Your task to perform on an android device: Clear all items from cart on target.com. Search for logitech g pro on target.com, select the first entry, add it to the cart, then select checkout. Image 0: 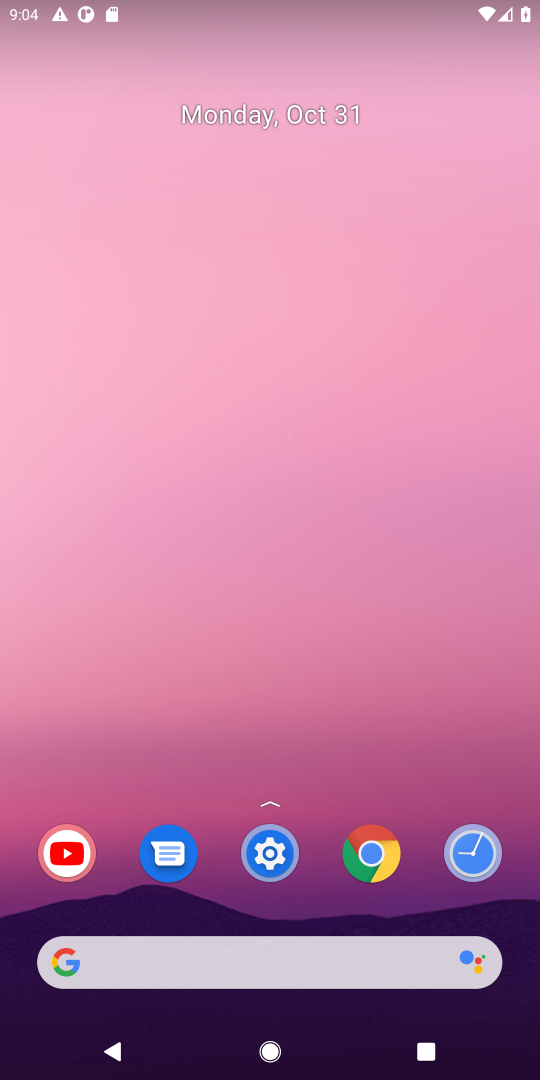
Step 0: click (213, 960)
Your task to perform on an android device: Clear all items from cart on target.com. Search for logitech g pro on target.com, select the first entry, add it to the cart, then select checkout. Image 1: 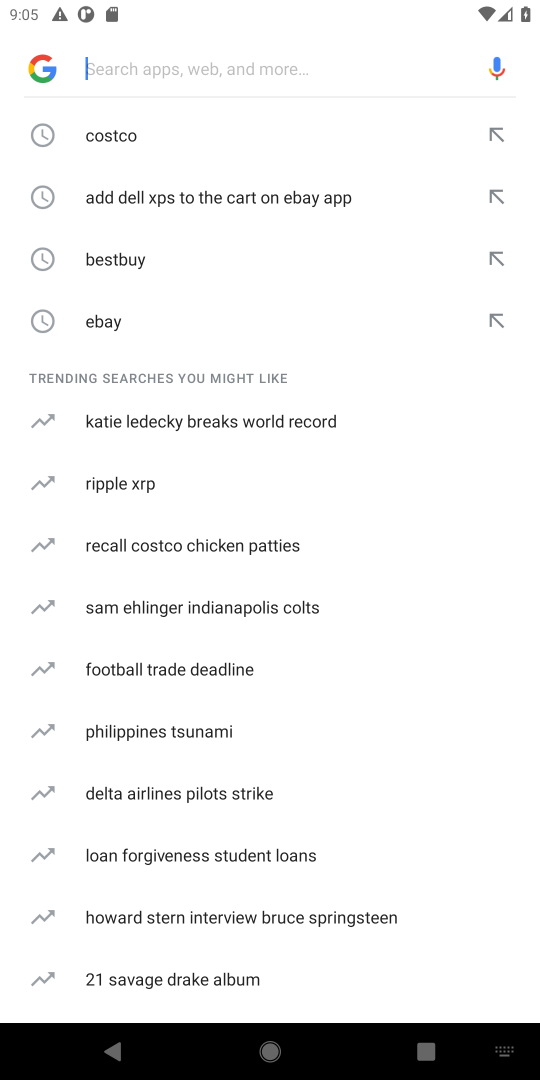
Step 1: type "target.com"
Your task to perform on an android device: Clear all items from cart on target.com. Search for logitech g pro on target.com, select the first entry, add it to the cart, then select checkout. Image 2: 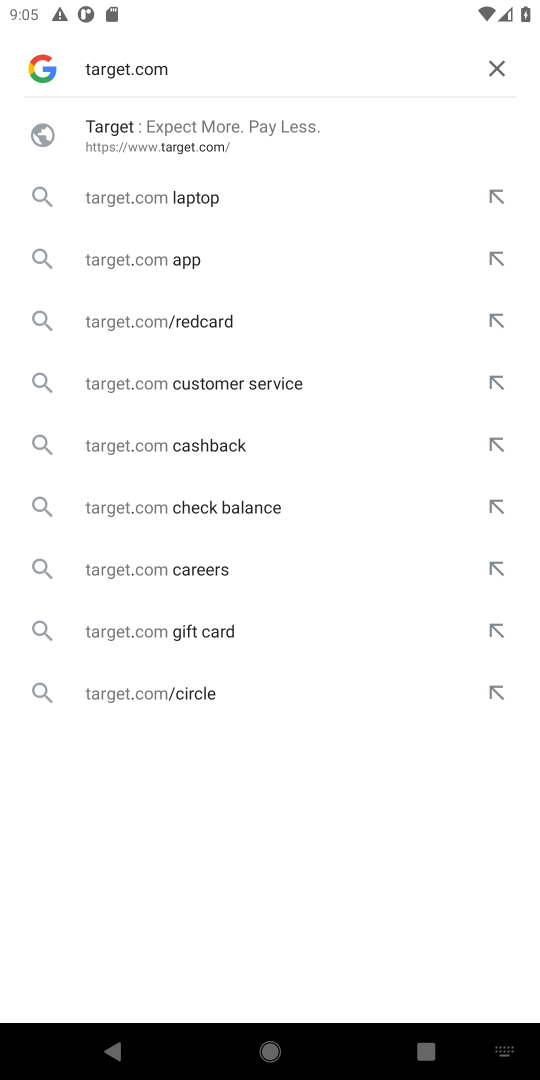
Step 2: click (121, 133)
Your task to perform on an android device: Clear all items from cart on target.com. Search for logitech g pro on target.com, select the first entry, add it to the cart, then select checkout. Image 3: 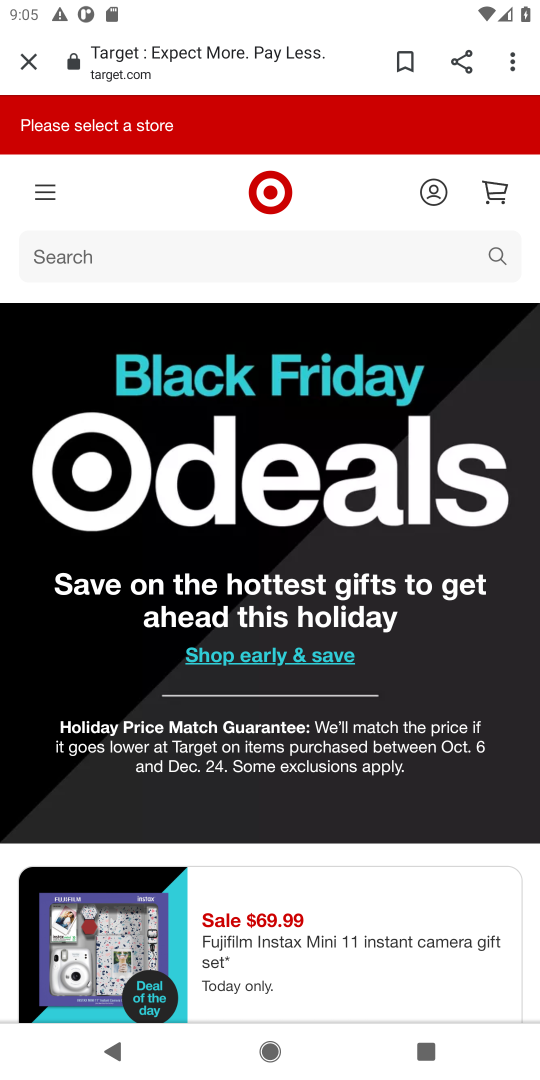
Step 3: click (278, 250)
Your task to perform on an android device: Clear all items from cart on target.com. Search for logitech g pro on target.com, select the first entry, add it to the cart, then select checkout. Image 4: 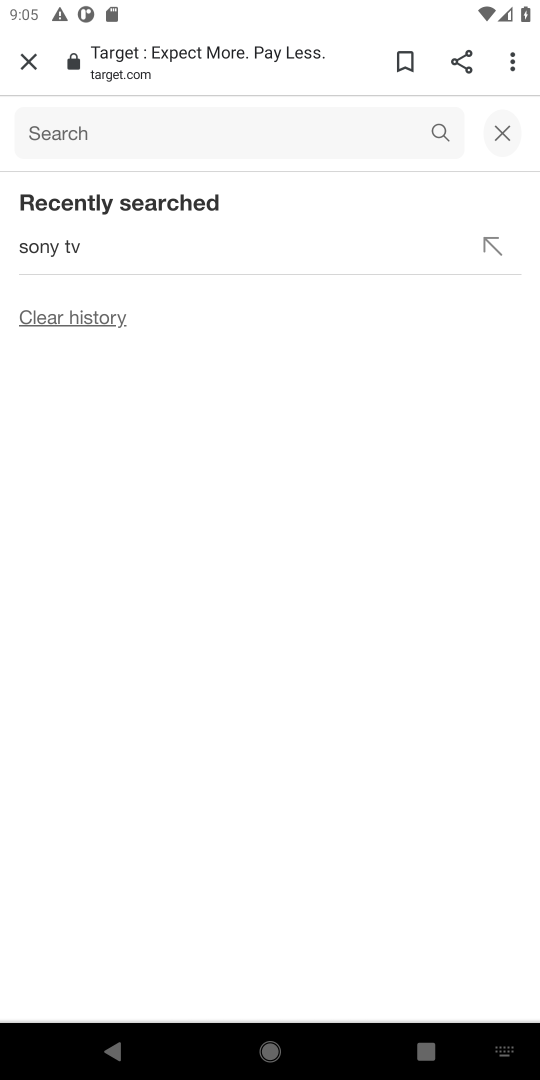
Step 4: type "logitech gpro"
Your task to perform on an android device: Clear all items from cart on target.com. Search for logitech g pro on target.com, select the first entry, add it to the cart, then select checkout. Image 5: 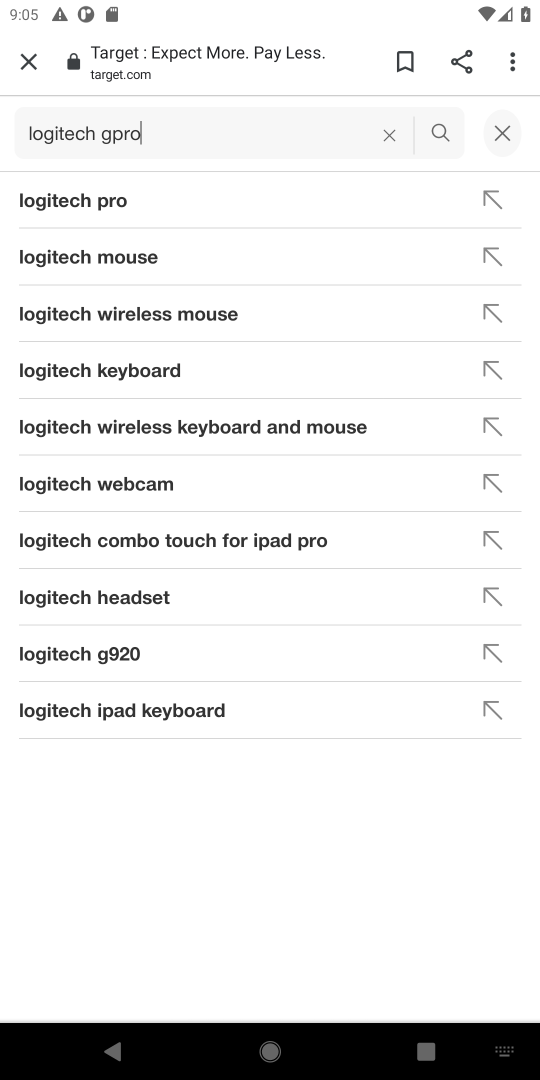
Step 5: click (114, 195)
Your task to perform on an android device: Clear all items from cart on target.com. Search for logitech g pro on target.com, select the first entry, add it to the cart, then select checkout. Image 6: 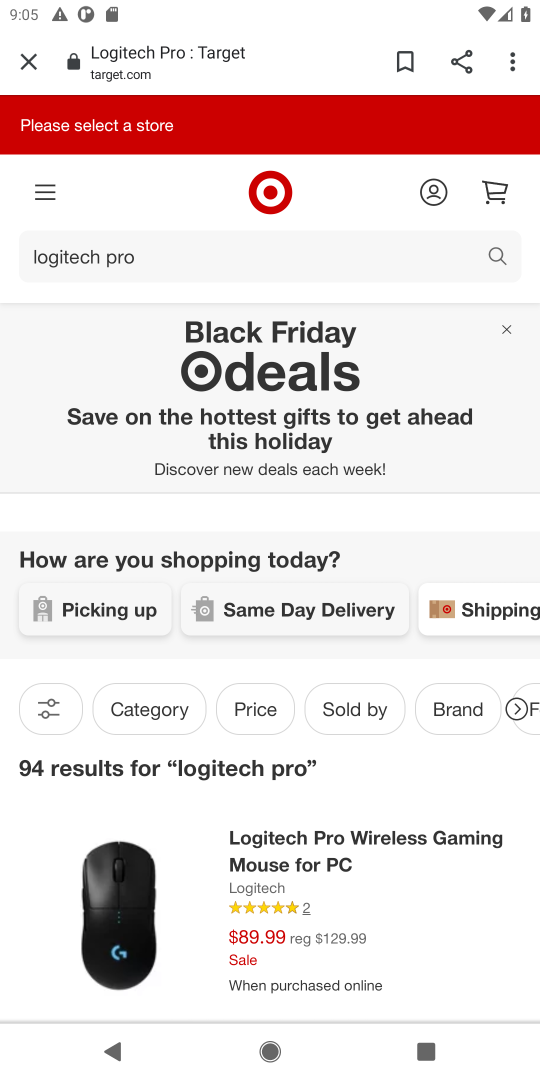
Step 6: drag from (472, 939) to (472, 824)
Your task to perform on an android device: Clear all items from cart on target.com. Search for logitech g pro on target.com, select the first entry, add it to the cart, then select checkout. Image 7: 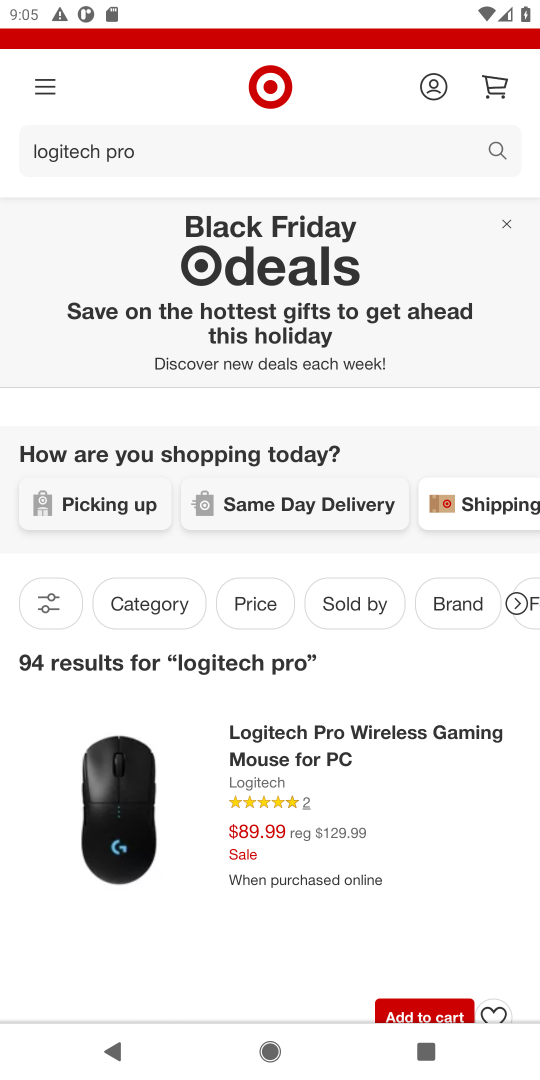
Step 7: click (403, 1013)
Your task to perform on an android device: Clear all items from cart on target.com. Search for logitech g pro on target.com, select the first entry, add it to the cart, then select checkout. Image 8: 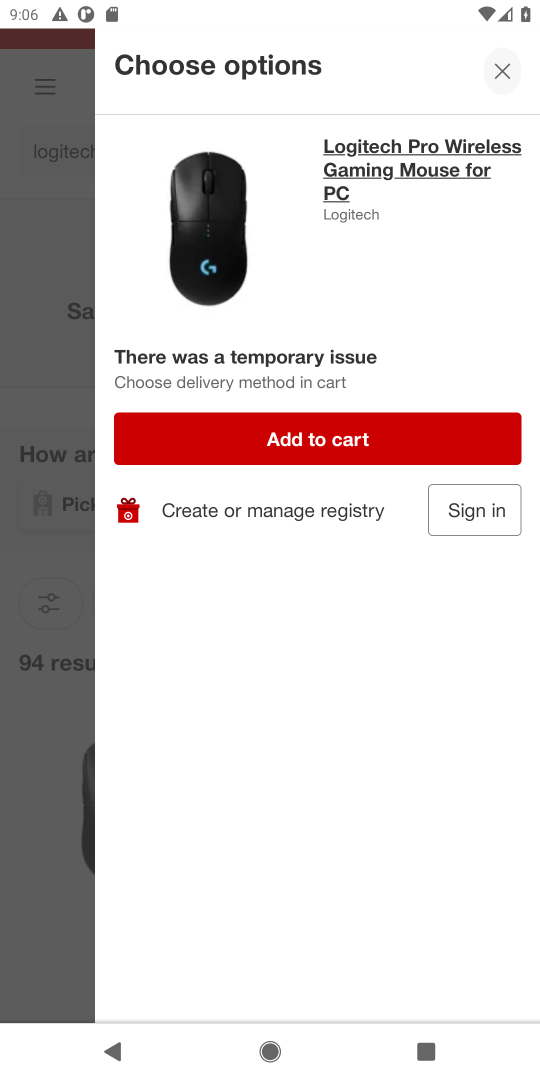
Step 8: click (318, 436)
Your task to perform on an android device: Clear all items from cart on target.com. Search for logitech g pro on target.com, select the first entry, add it to the cart, then select checkout. Image 9: 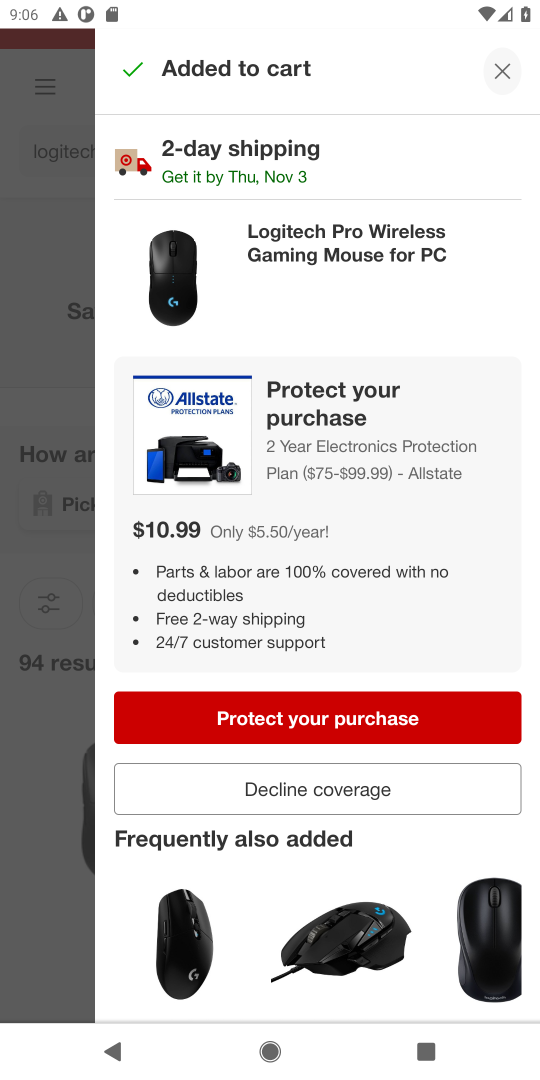
Step 9: click (501, 74)
Your task to perform on an android device: Clear all items from cart on target.com. Search for logitech g pro on target.com, select the first entry, add it to the cart, then select checkout. Image 10: 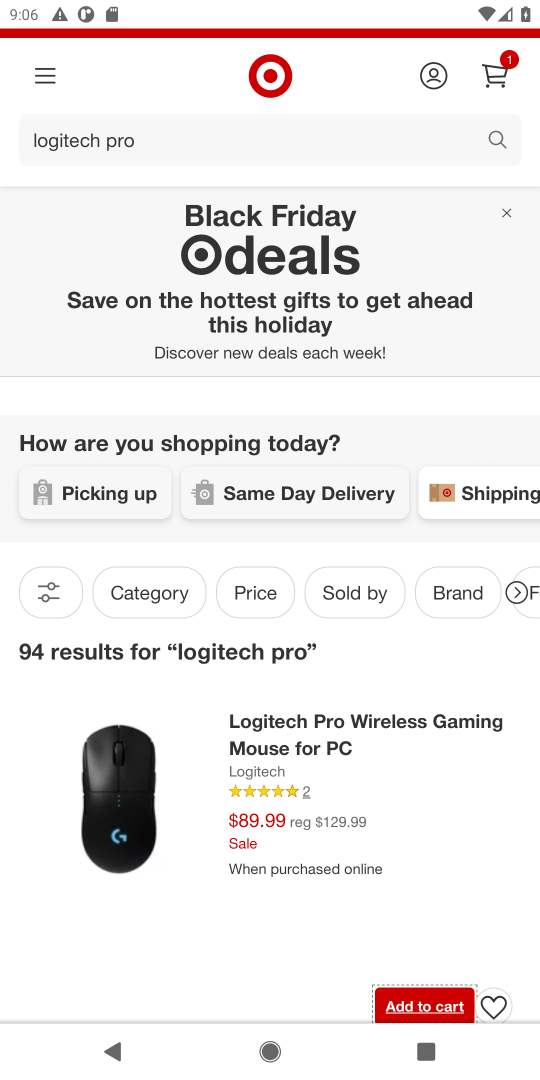
Step 10: click (497, 64)
Your task to perform on an android device: Clear all items from cart on target.com. Search for logitech g pro on target.com, select the first entry, add it to the cart, then select checkout. Image 11: 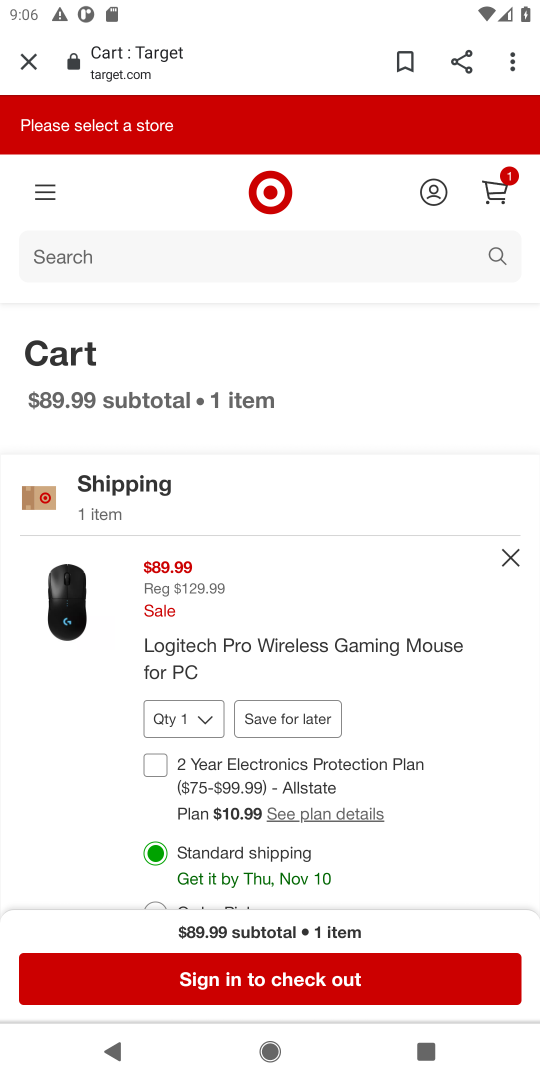
Step 11: click (313, 980)
Your task to perform on an android device: Clear all items from cart on target.com. Search for logitech g pro on target.com, select the first entry, add it to the cart, then select checkout. Image 12: 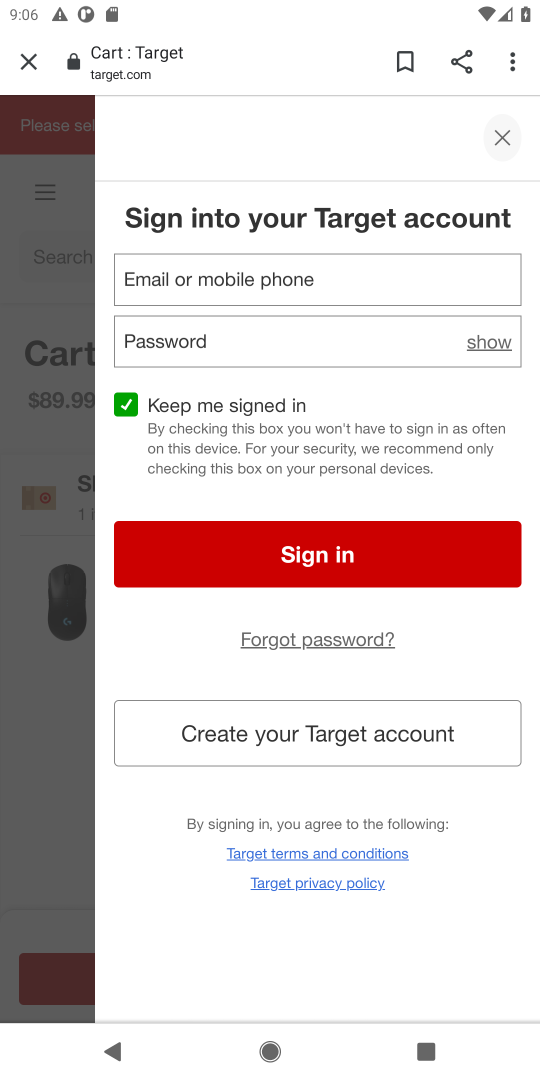
Step 12: task complete